Your task to perform on an android device: allow notifications from all sites in the chrome app Image 0: 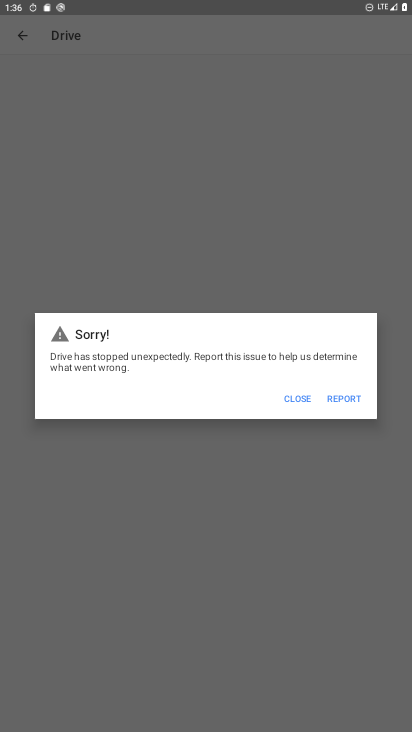
Step 0: press home button
Your task to perform on an android device: allow notifications from all sites in the chrome app Image 1: 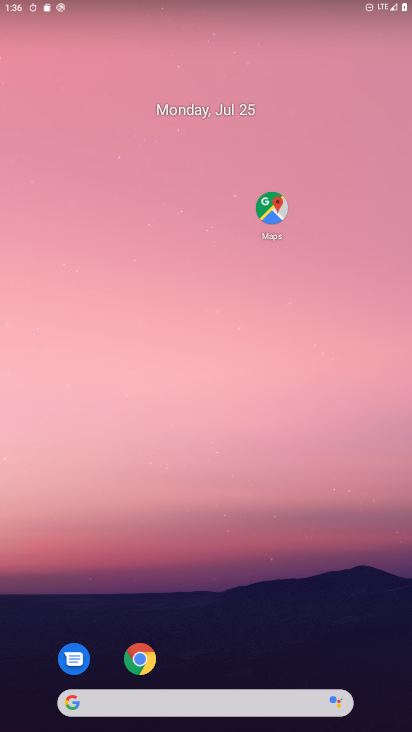
Step 1: click (143, 648)
Your task to perform on an android device: allow notifications from all sites in the chrome app Image 2: 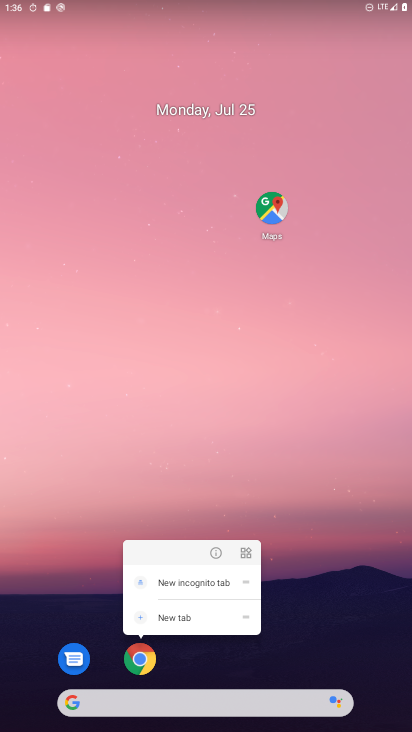
Step 2: click (137, 661)
Your task to perform on an android device: allow notifications from all sites in the chrome app Image 3: 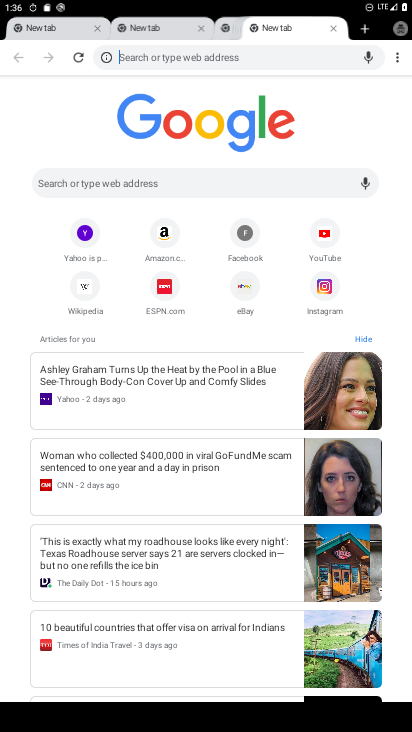
Step 3: click (397, 52)
Your task to perform on an android device: allow notifications from all sites in the chrome app Image 4: 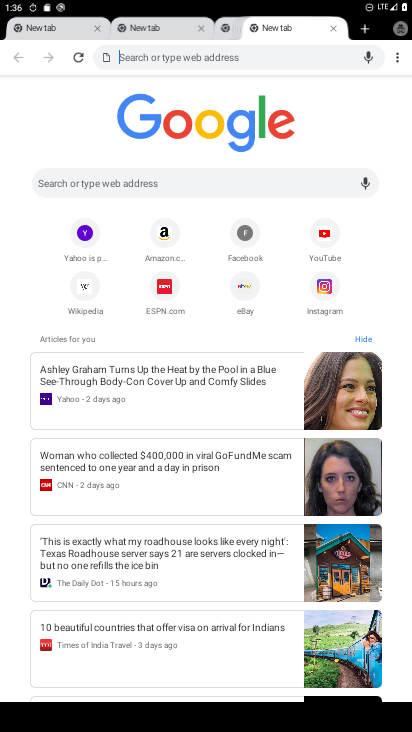
Step 4: click (393, 55)
Your task to perform on an android device: allow notifications from all sites in the chrome app Image 5: 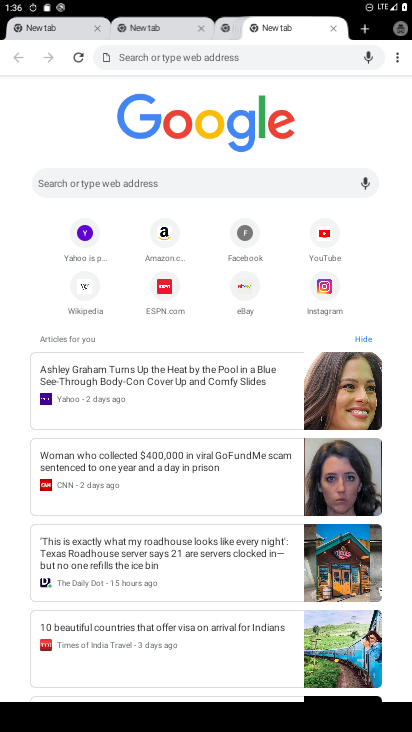
Step 5: click (396, 61)
Your task to perform on an android device: allow notifications from all sites in the chrome app Image 6: 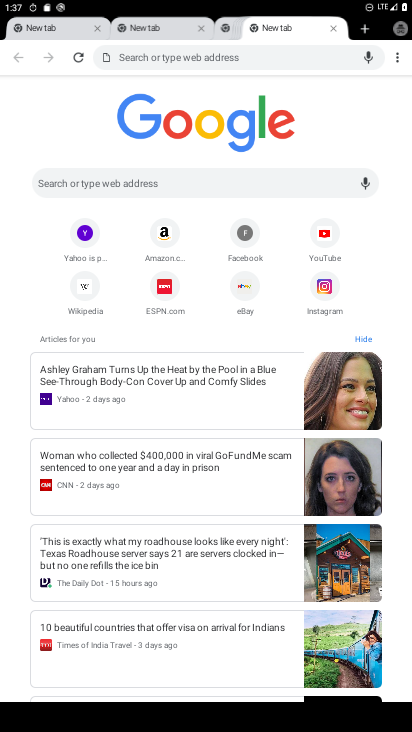
Step 6: task complete